Your task to perform on an android device: Open calendar and show me the fourth week of next month Image 0: 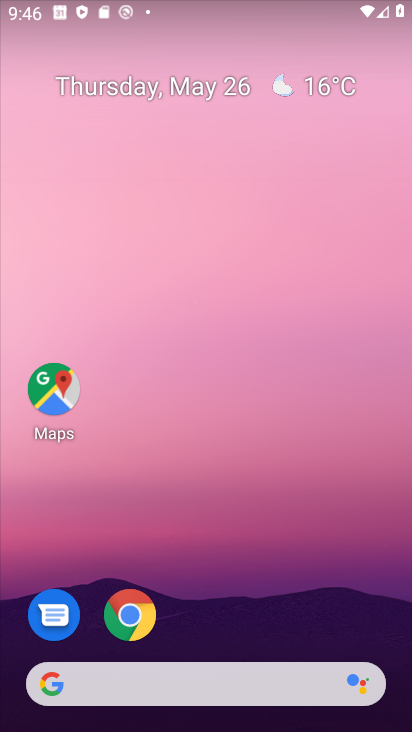
Step 0: press home button
Your task to perform on an android device: Open calendar and show me the fourth week of next month Image 1: 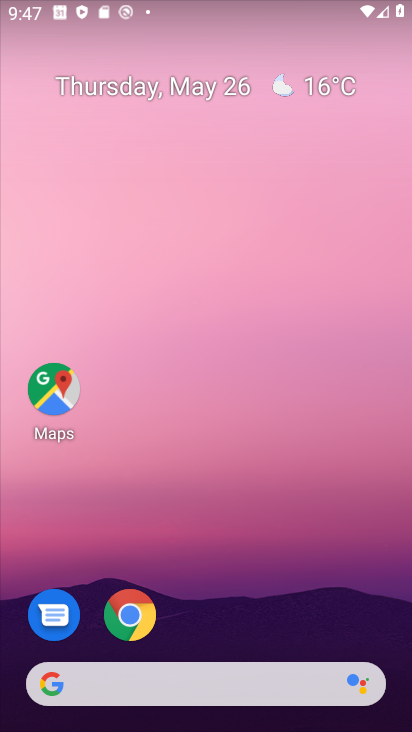
Step 1: drag from (281, 674) to (262, 93)
Your task to perform on an android device: Open calendar and show me the fourth week of next month Image 2: 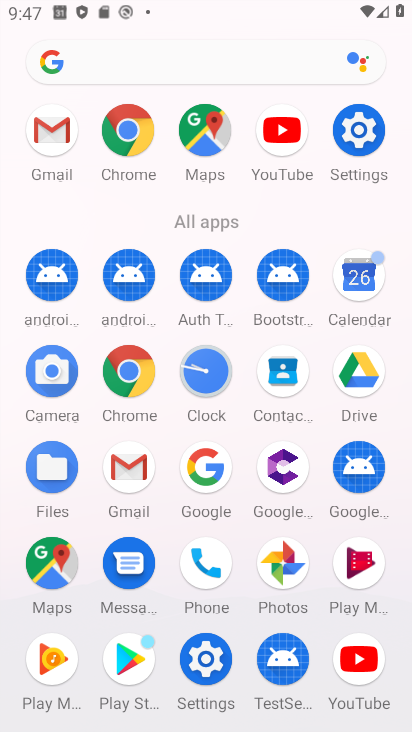
Step 2: click (357, 577)
Your task to perform on an android device: Open calendar and show me the fourth week of next month Image 3: 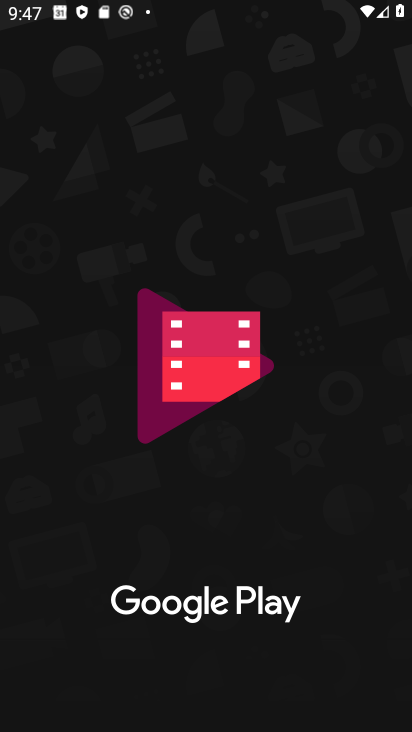
Step 3: press home button
Your task to perform on an android device: Open calendar and show me the fourth week of next month Image 4: 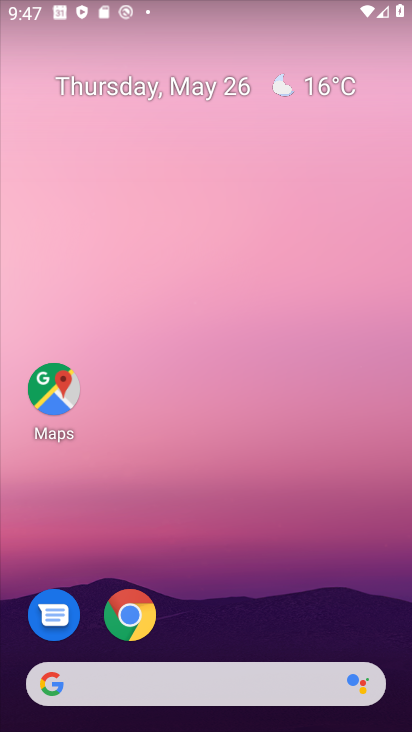
Step 4: drag from (241, 651) to (196, 139)
Your task to perform on an android device: Open calendar and show me the fourth week of next month Image 5: 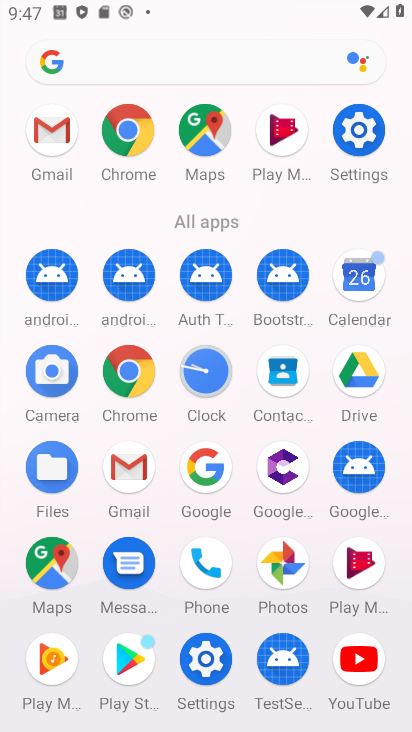
Step 5: click (361, 283)
Your task to perform on an android device: Open calendar and show me the fourth week of next month Image 6: 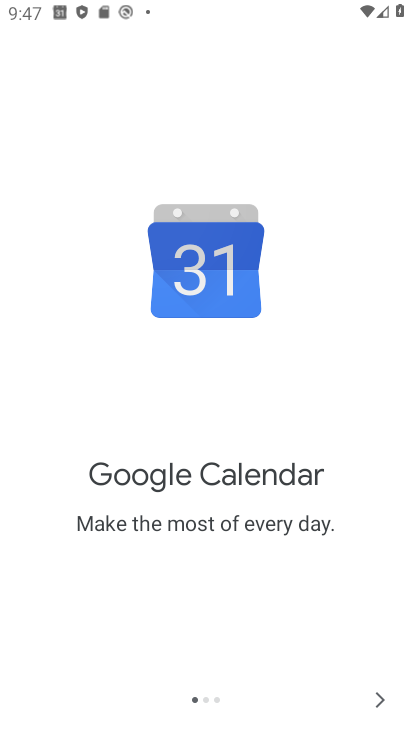
Step 6: click (381, 711)
Your task to perform on an android device: Open calendar and show me the fourth week of next month Image 7: 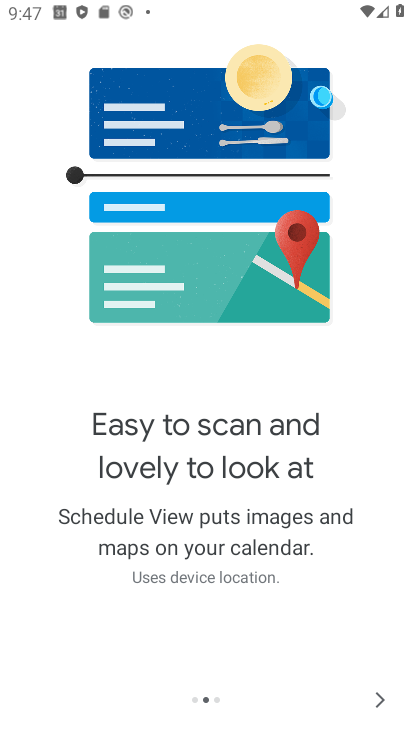
Step 7: click (372, 708)
Your task to perform on an android device: Open calendar and show me the fourth week of next month Image 8: 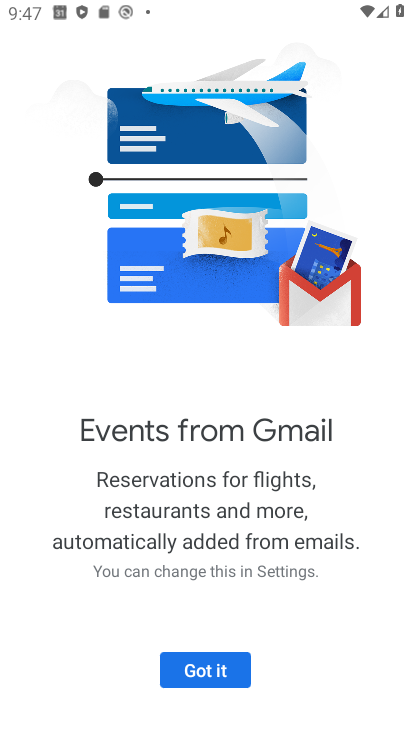
Step 8: click (228, 678)
Your task to perform on an android device: Open calendar and show me the fourth week of next month Image 9: 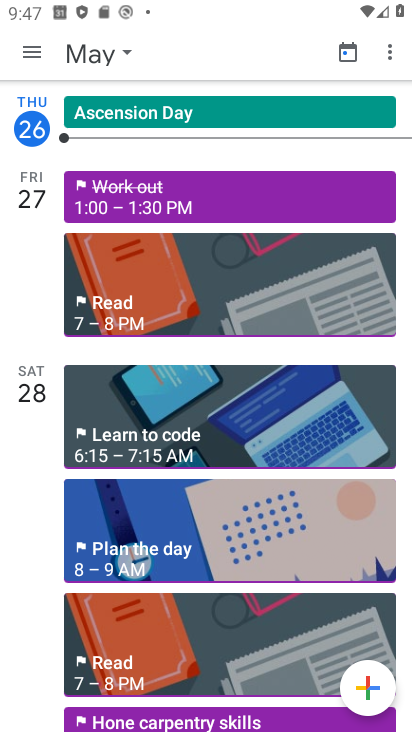
Step 9: click (34, 42)
Your task to perform on an android device: Open calendar and show me the fourth week of next month Image 10: 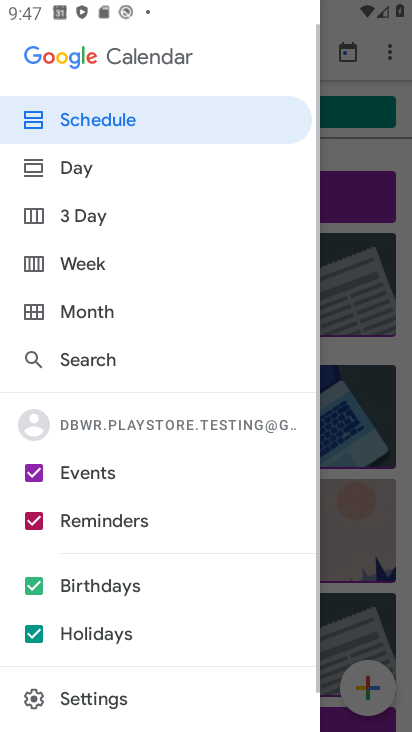
Step 10: click (77, 308)
Your task to perform on an android device: Open calendar and show me the fourth week of next month Image 11: 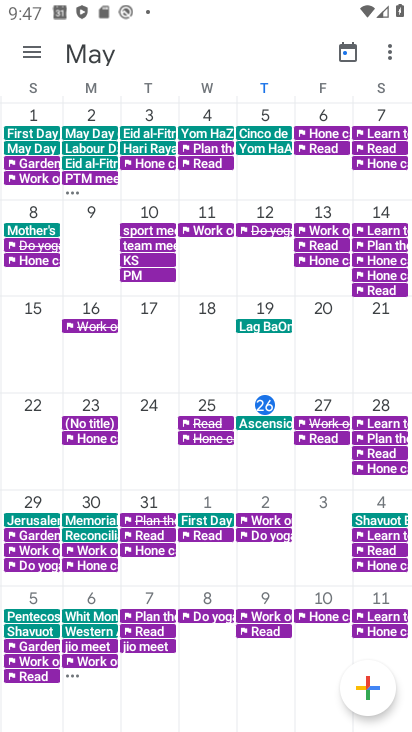
Step 11: drag from (341, 444) to (0, 423)
Your task to perform on an android device: Open calendar and show me the fourth week of next month Image 12: 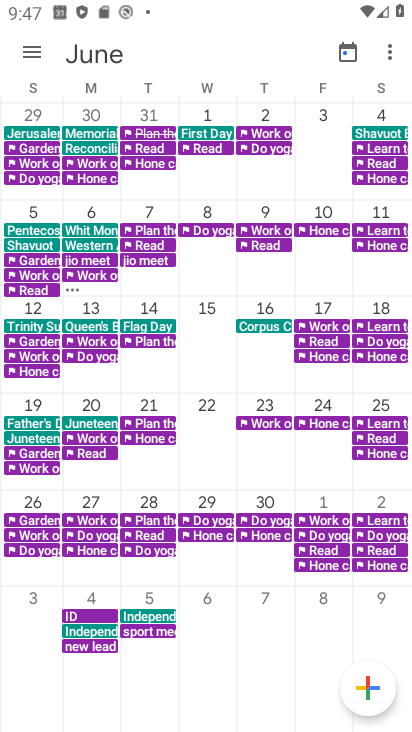
Step 12: click (86, 421)
Your task to perform on an android device: Open calendar and show me the fourth week of next month Image 13: 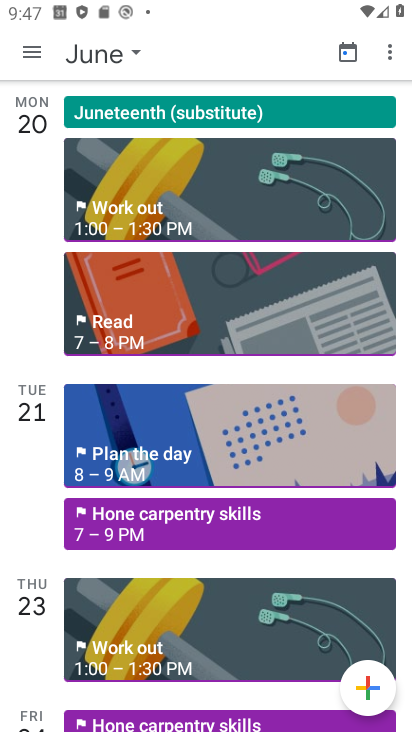
Step 13: task complete